Your task to perform on an android device: Open Chrome and go to settings Image 0: 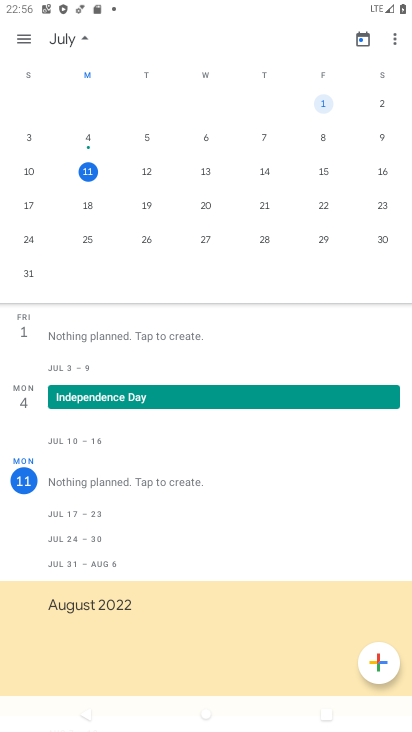
Step 0: press home button
Your task to perform on an android device: Open Chrome and go to settings Image 1: 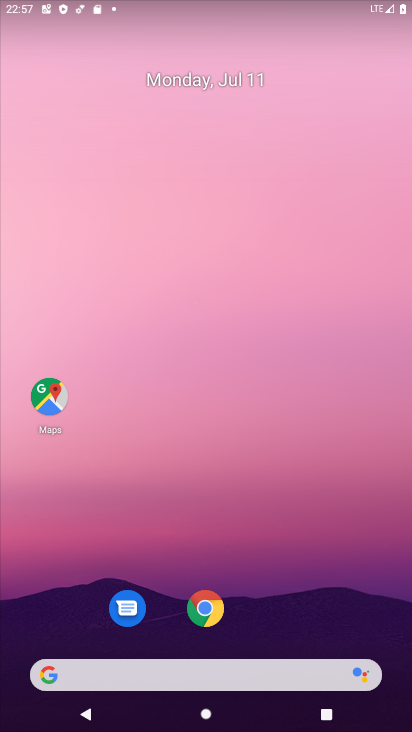
Step 1: click (229, 612)
Your task to perform on an android device: Open Chrome and go to settings Image 2: 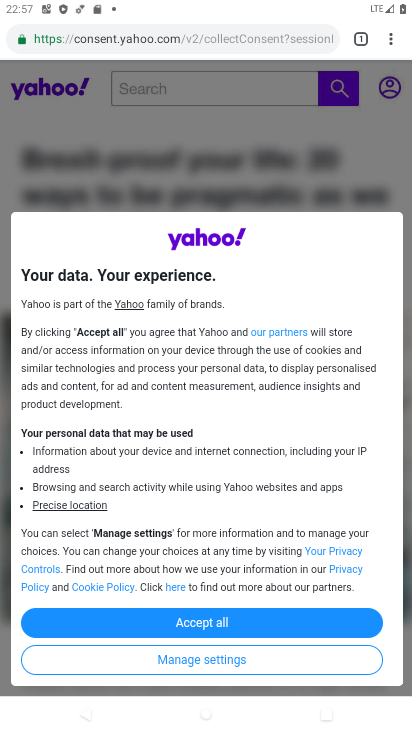
Step 2: click (204, 598)
Your task to perform on an android device: Open Chrome and go to settings Image 3: 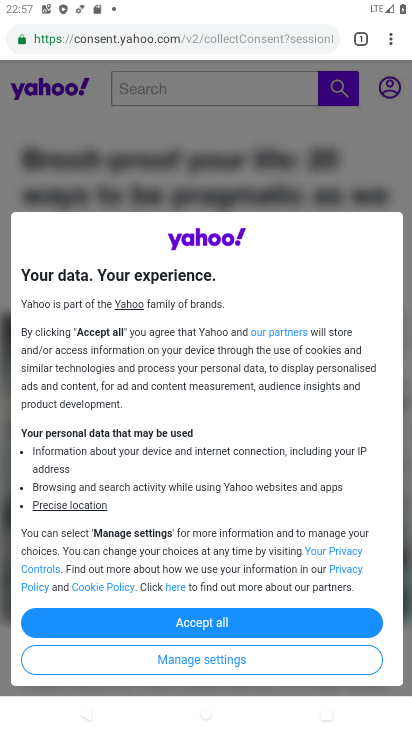
Step 3: click (396, 45)
Your task to perform on an android device: Open Chrome and go to settings Image 4: 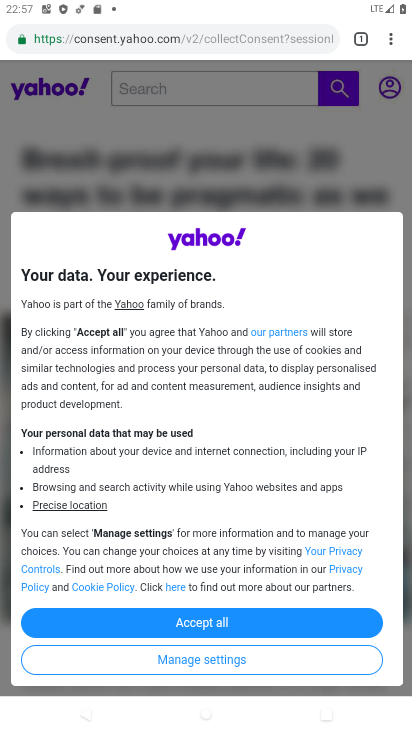
Step 4: click (386, 35)
Your task to perform on an android device: Open Chrome and go to settings Image 5: 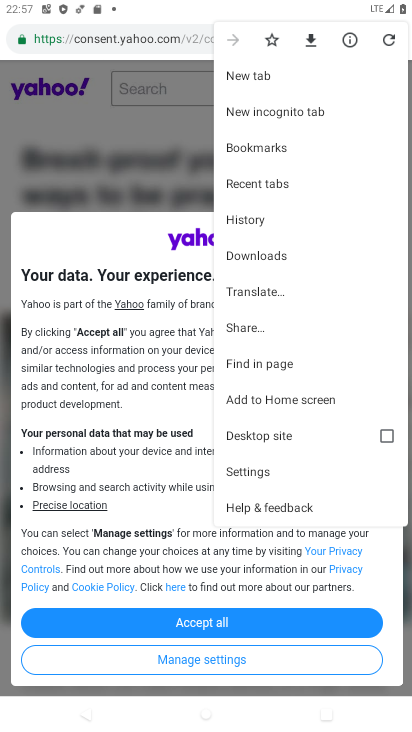
Step 5: click (232, 469)
Your task to perform on an android device: Open Chrome and go to settings Image 6: 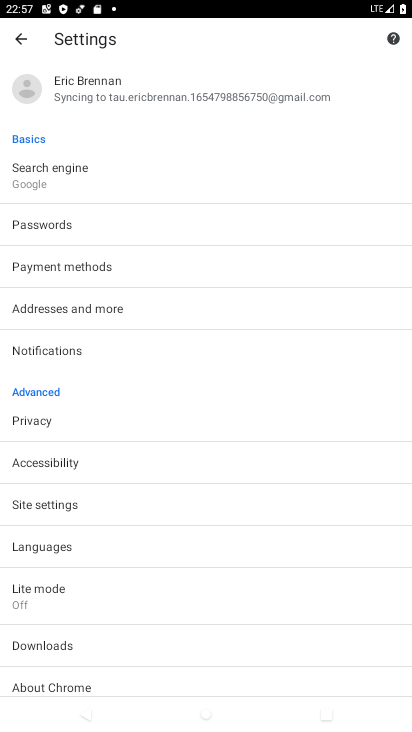
Step 6: task complete